Your task to perform on an android device: Open calendar and show me the fourth week of next month Image 0: 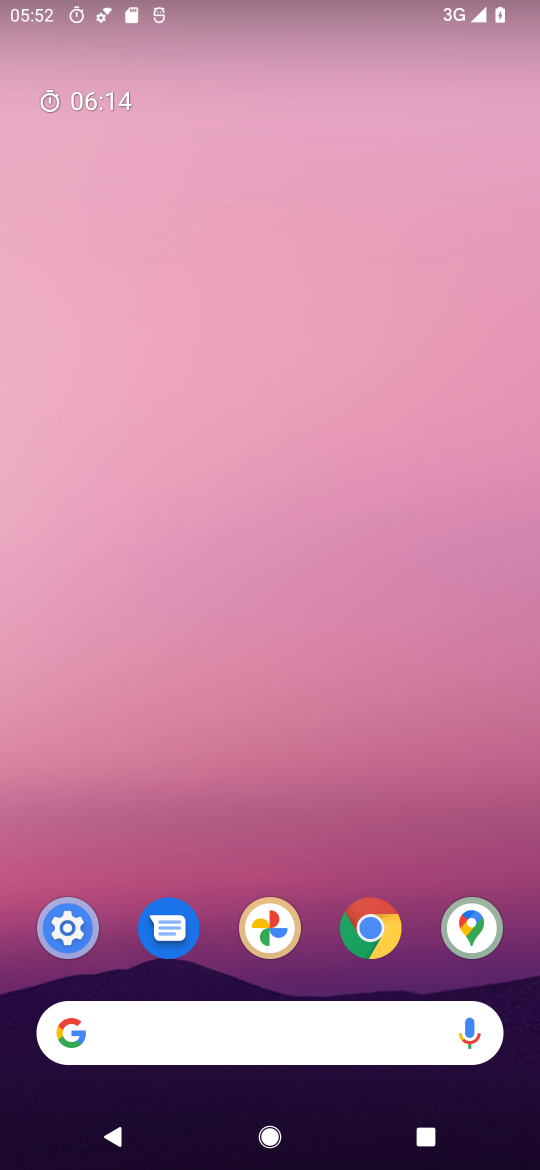
Step 0: drag from (247, 844) to (280, 125)
Your task to perform on an android device: Open calendar and show me the fourth week of next month Image 1: 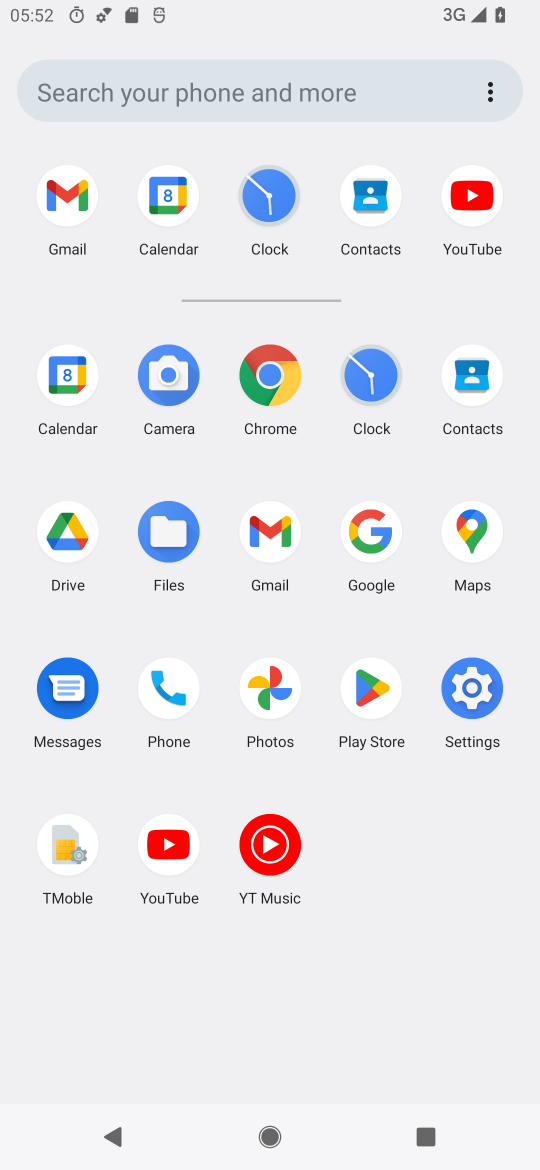
Step 1: click (65, 409)
Your task to perform on an android device: Open calendar and show me the fourth week of next month Image 2: 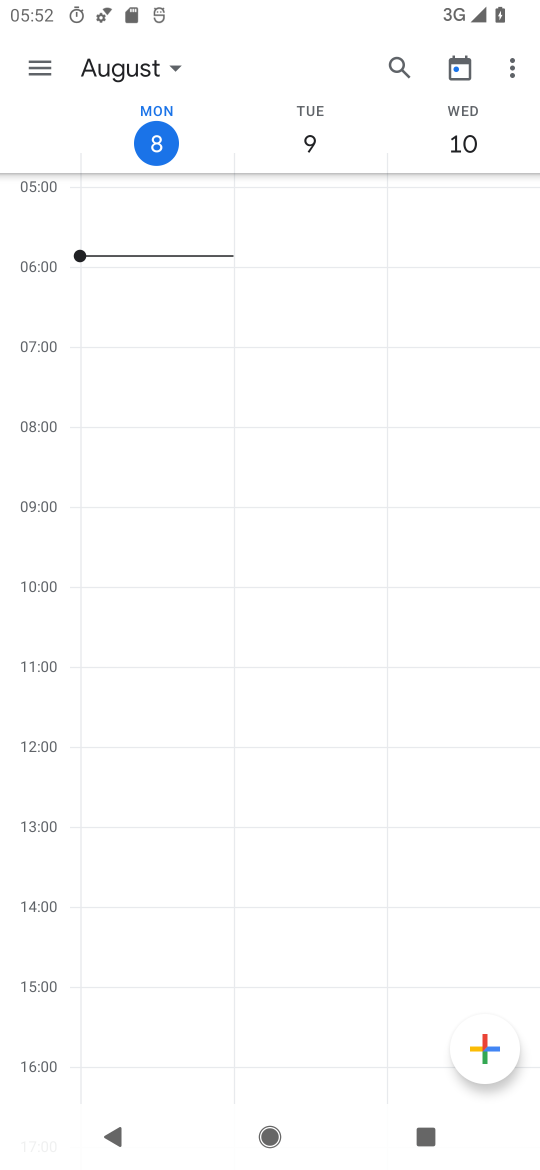
Step 2: click (51, 68)
Your task to perform on an android device: Open calendar and show me the fourth week of next month Image 3: 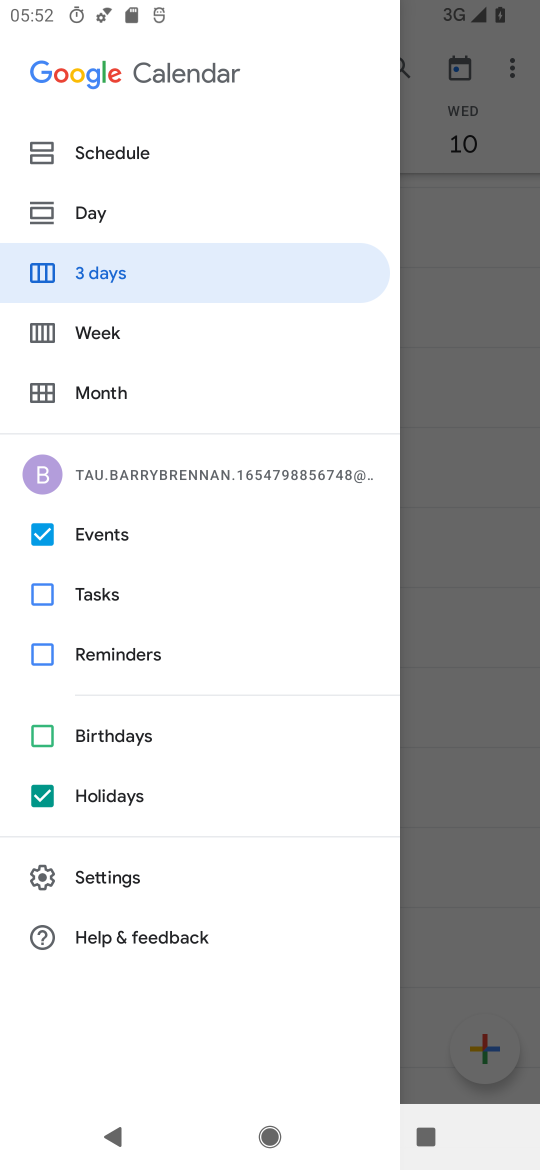
Step 3: click (101, 336)
Your task to perform on an android device: Open calendar and show me the fourth week of next month Image 4: 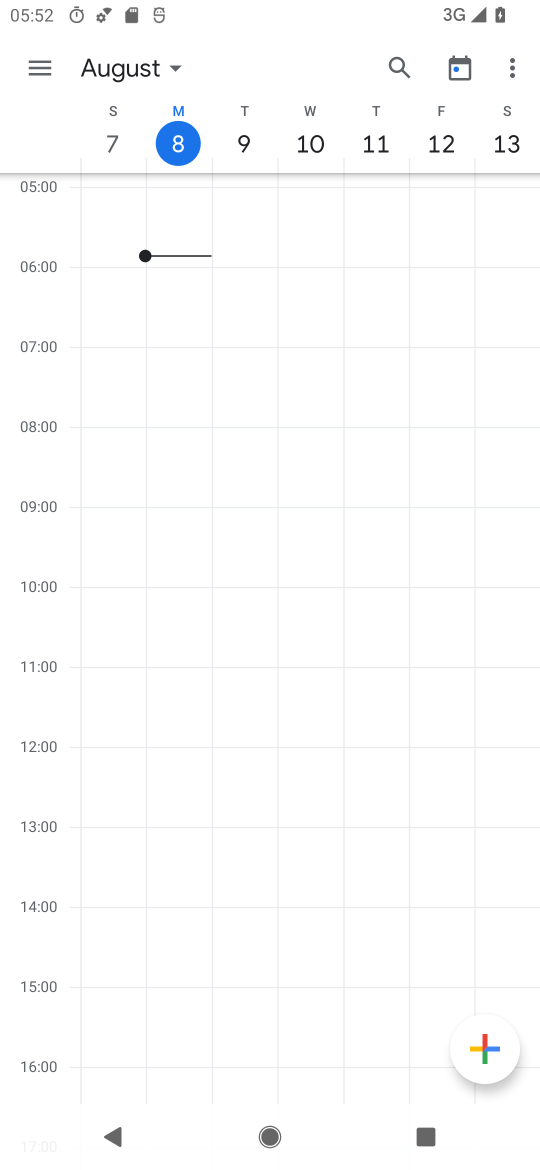
Step 4: click (128, 75)
Your task to perform on an android device: Open calendar and show me the fourth week of next month Image 5: 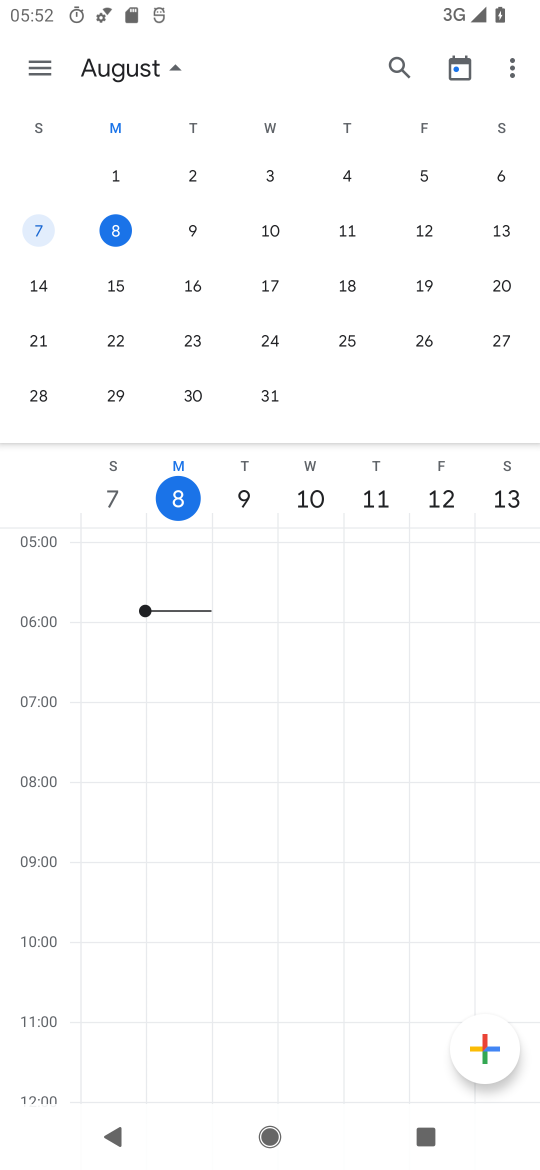
Step 5: drag from (456, 265) to (32, 279)
Your task to perform on an android device: Open calendar and show me the fourth week of next month Image 6: 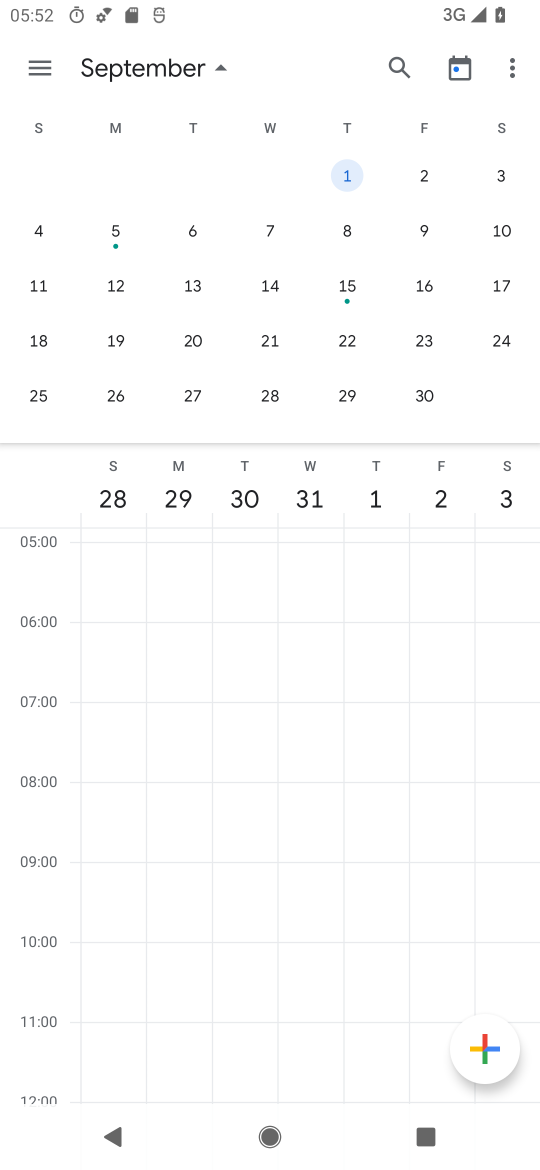
Step 6: click (350, 352)
Your task to perform on an android device: Open calendar and show me the fourth week of next month Image 7: 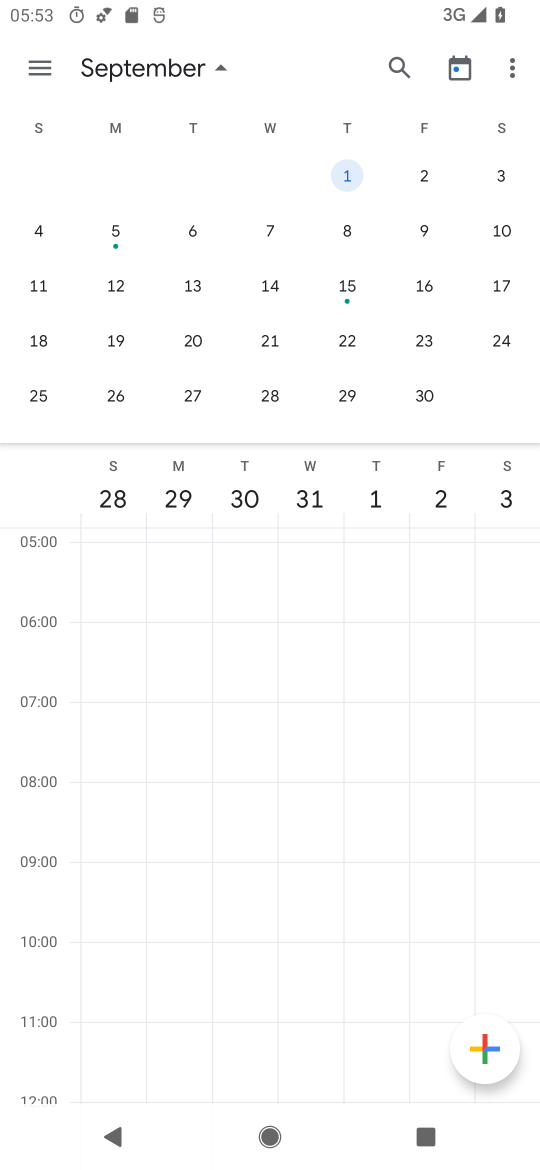
Step 7: click (345, 344)
Your task to perform on an android device: Open calendar and show me the fourth week of next month Image 8: 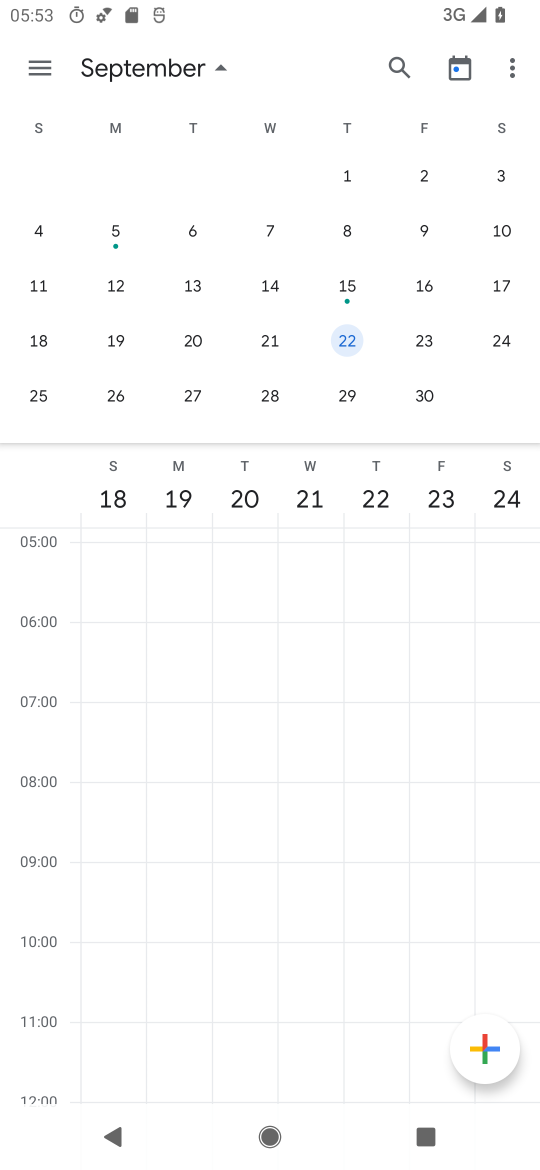
Step 8: click (342, 344)
Your task to perform on an android device: Open calendar and show me the fourth week of next month Image 9: 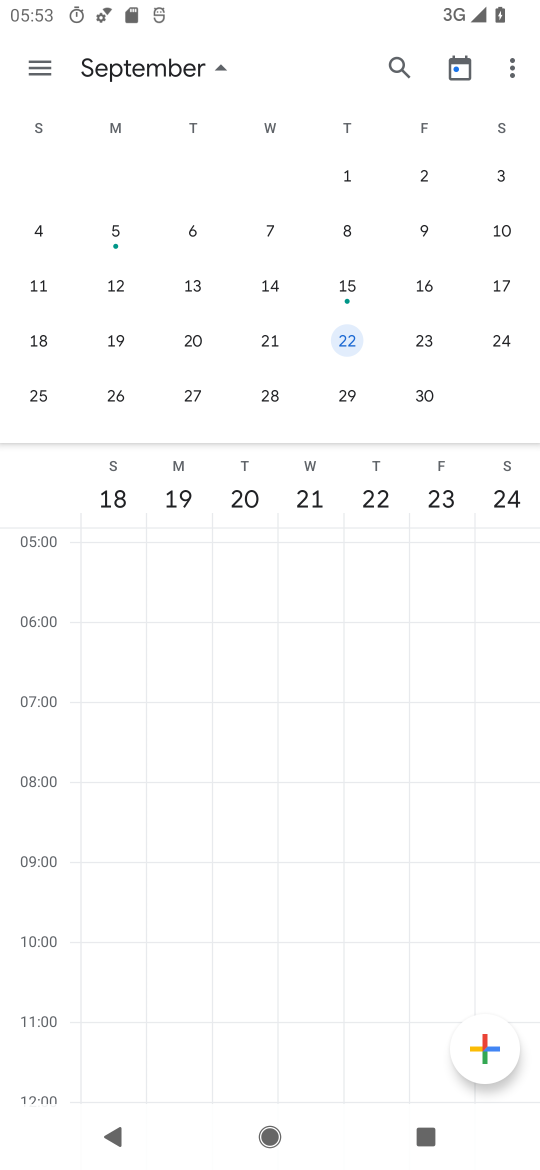
Step 9: click (42, 66)
Your task to perform on an android device: Open calendar and show me the fourth week of next month Image 10: 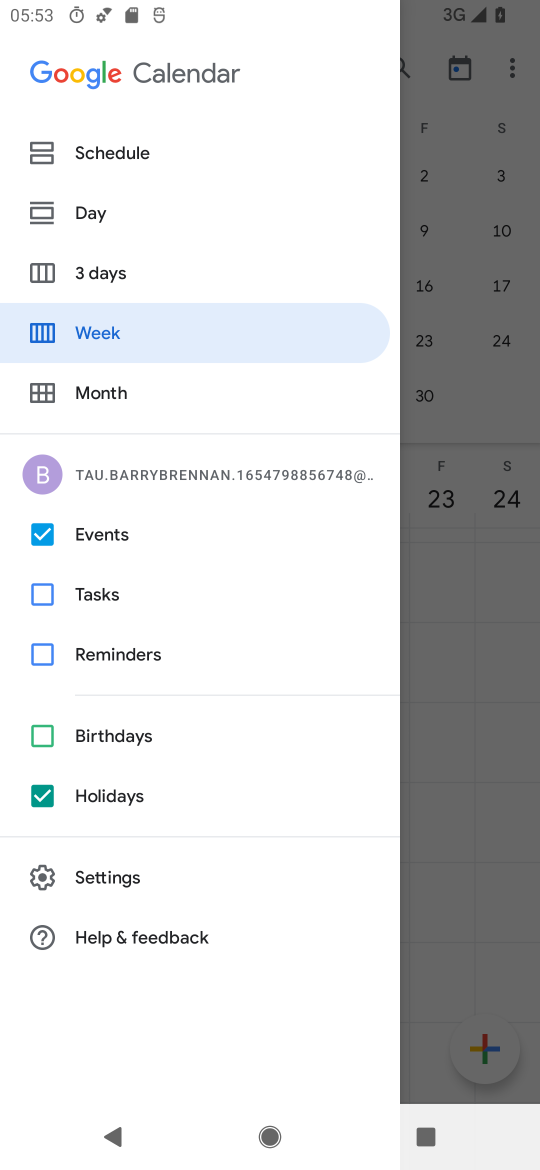
Step 10: click (148, 329)
Your task to perform on an android device: Open calendar and show me the fourth week of next month Image 11: 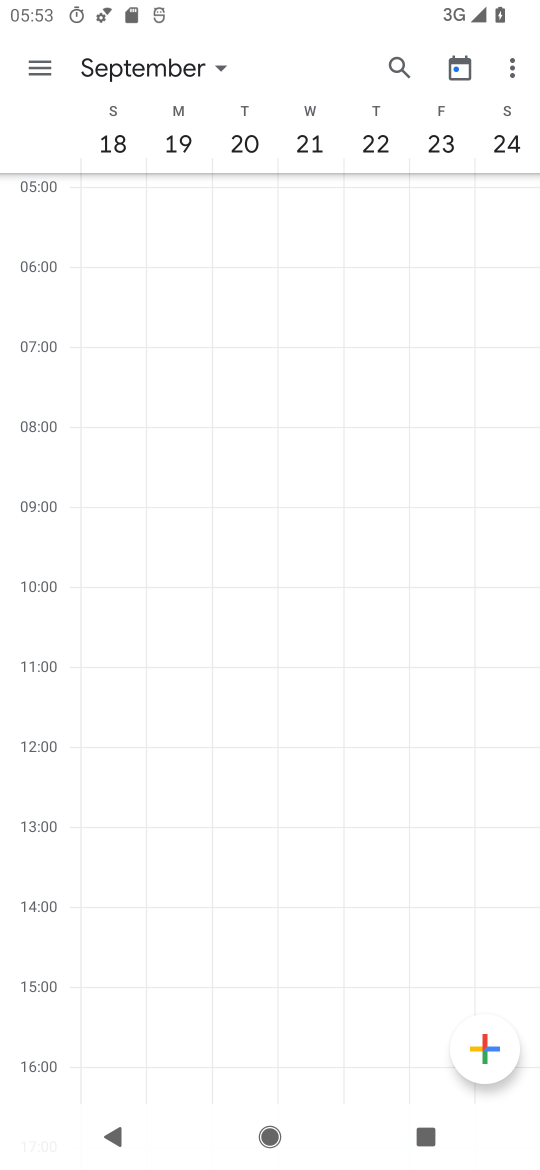
Step 11: task complete